Your task to perform on an android device: toggle javascript in the chrome app Image 0: 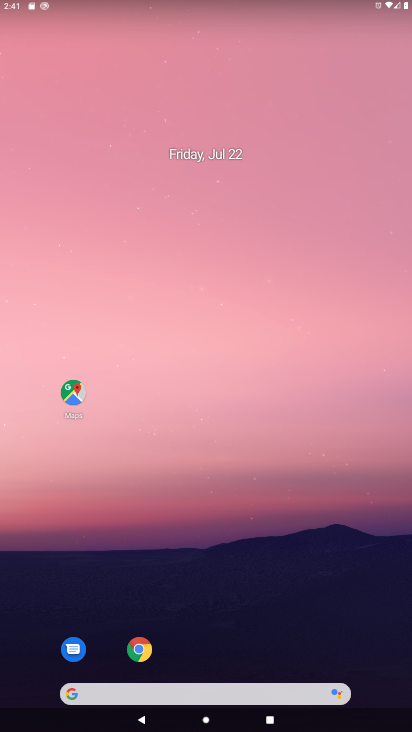
Step 0: click (135, 647)
Your task to perform on an android device: toggle javascript in the chrome app Image 1: 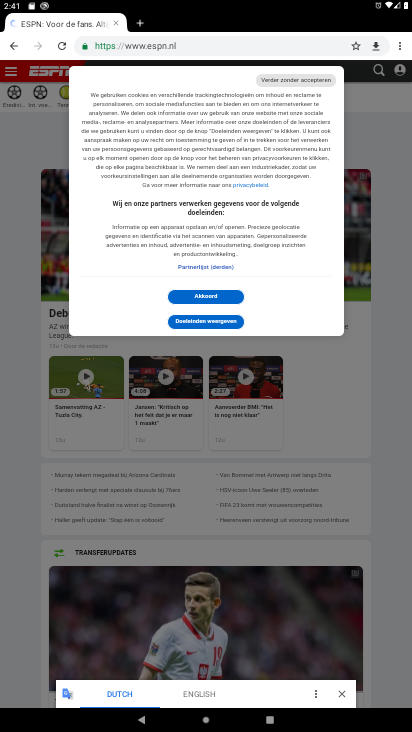
Step 1: click (401, 47)
Your task to perform on an android device: toggle javascript in the chrome app Image 2: 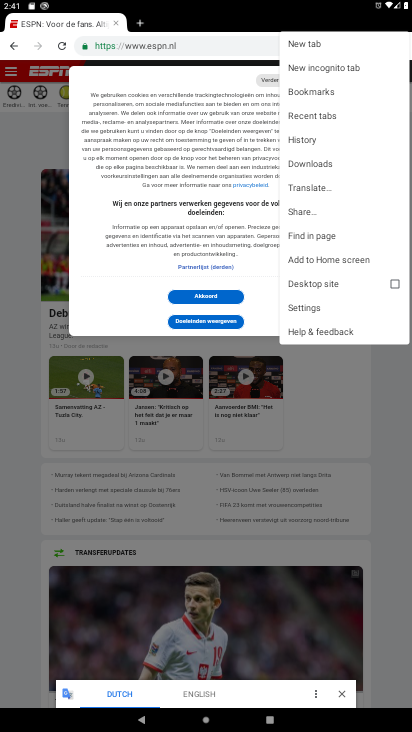
Step 2: click (308, 304)
Your task to perform on an android device: toggle javascript in the chrome app Image 3: 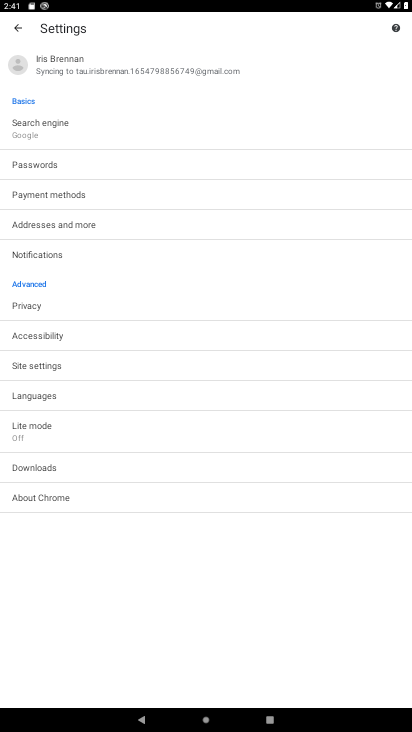
Step 3: click (43, 370)
Your task to perform on an android device: toggle javascript in the chrome app Image 4: 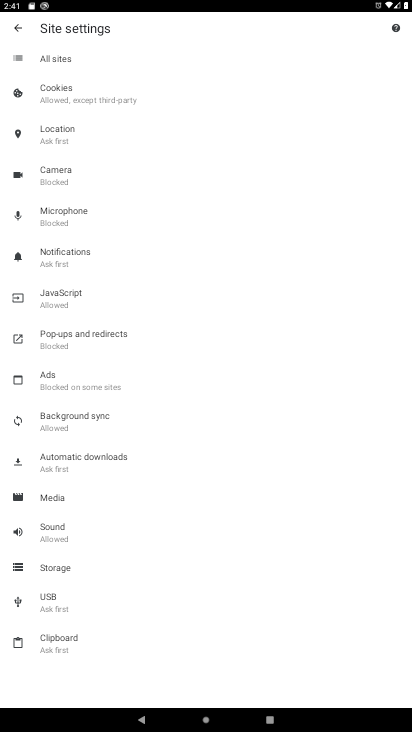
Step 4: click (51, 299)
Your task to perform on an android device: toggle javascript in the chrome app Image 5: 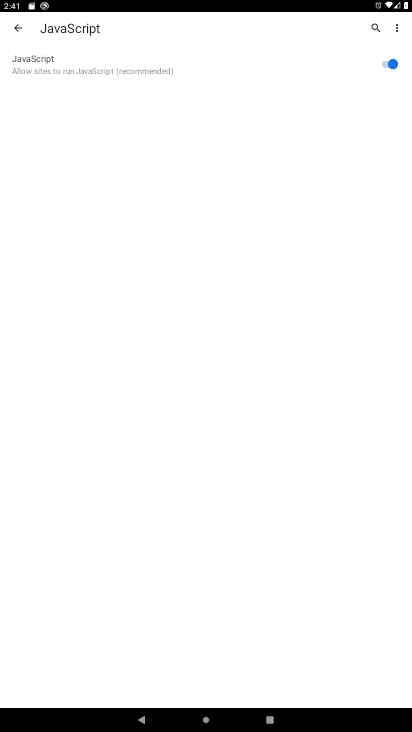
Step 5: click (391, 58)
Your task to perform on an android device: toggle javascript in the chrome app Image 6: 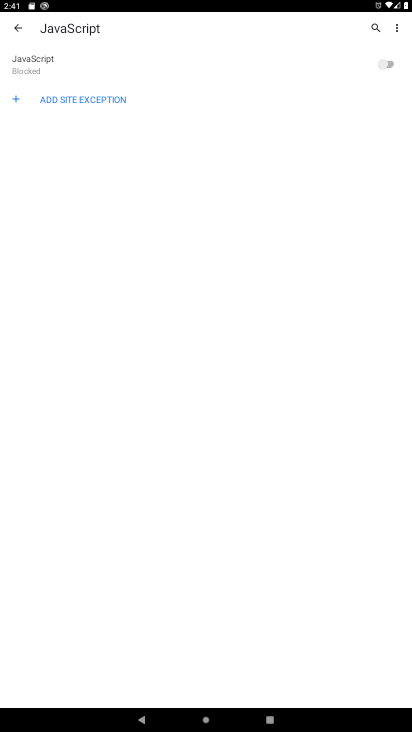
Step 6: task complete